Your task to perform on an android device: turn pop-ups off in chrome Image 0: 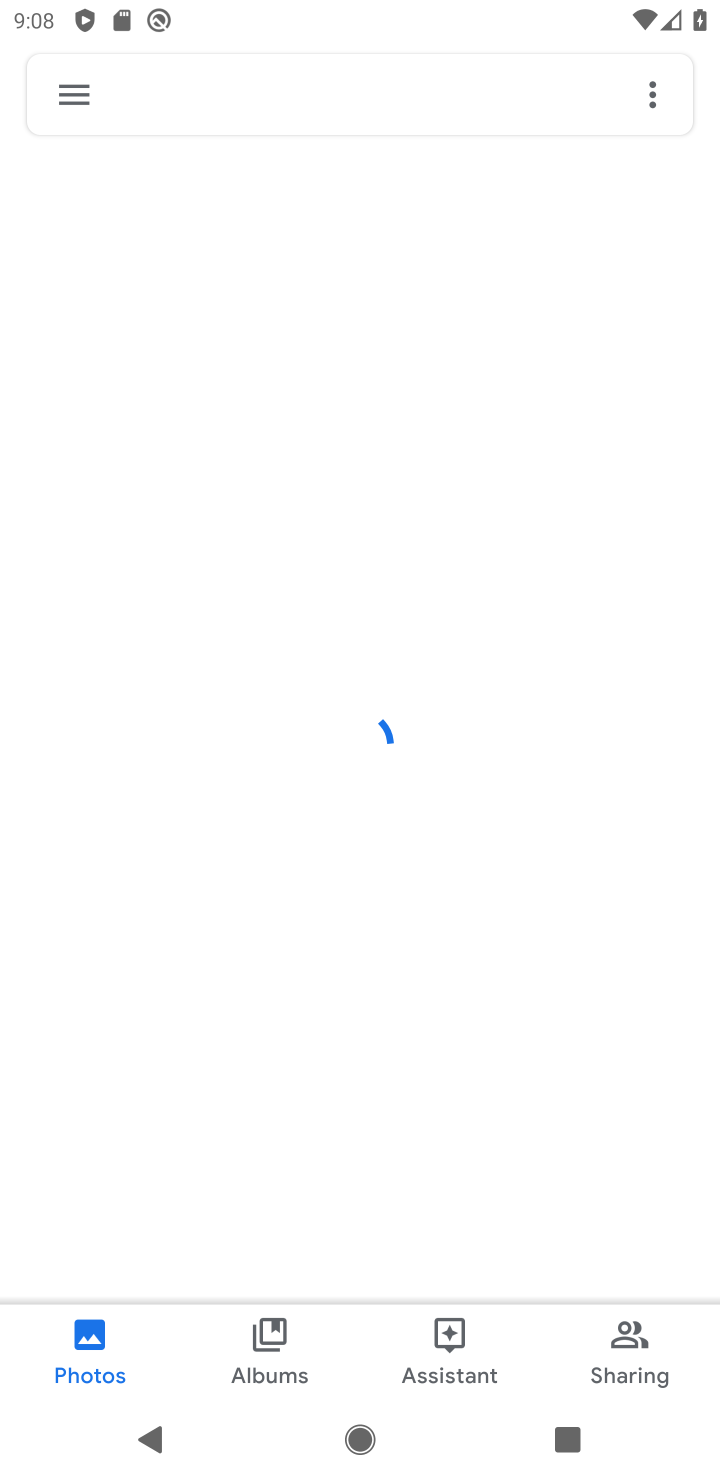
Step 0: press home button
Your task to perform on an android device: turn pop-ups off in chrome Image 1: 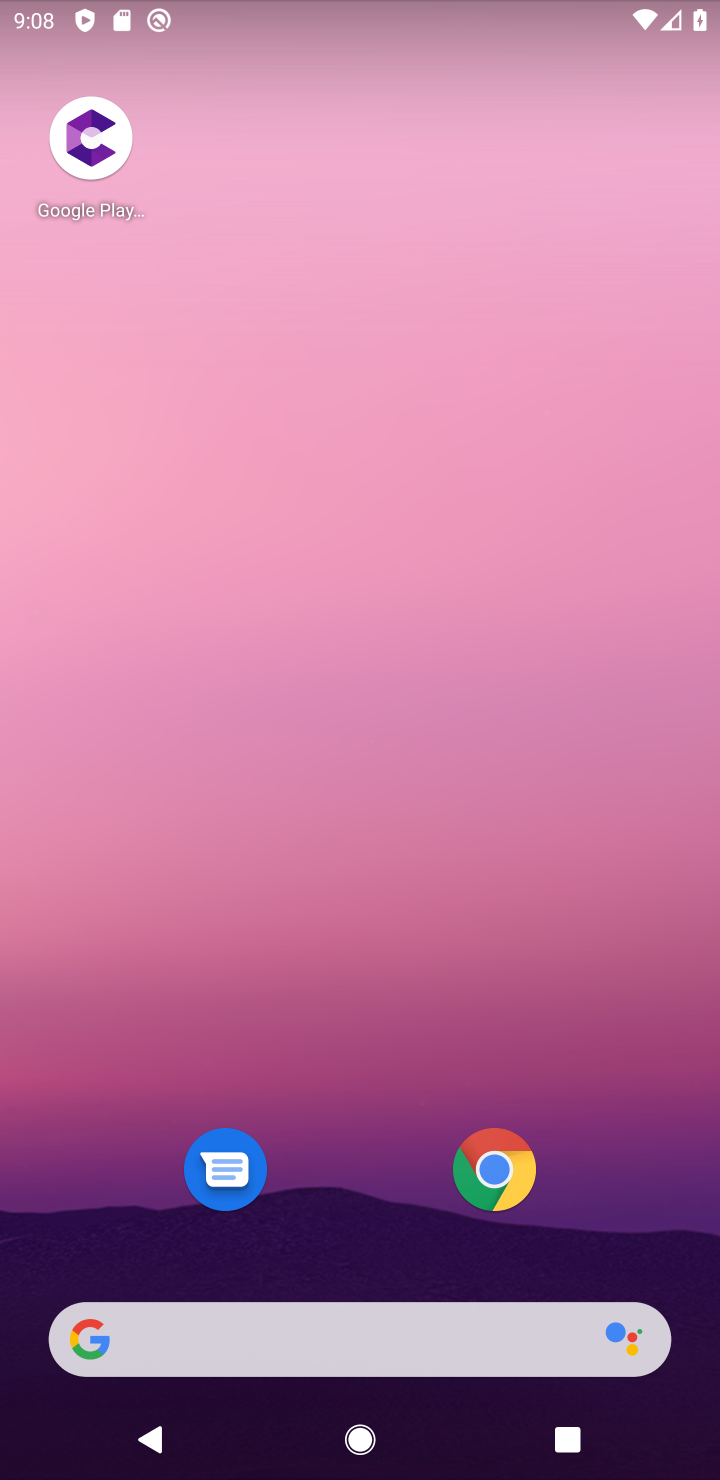
Step 1: click (499, 1174)
Your task to perform on an android device: turn pop-ups off in chrome Image 2: 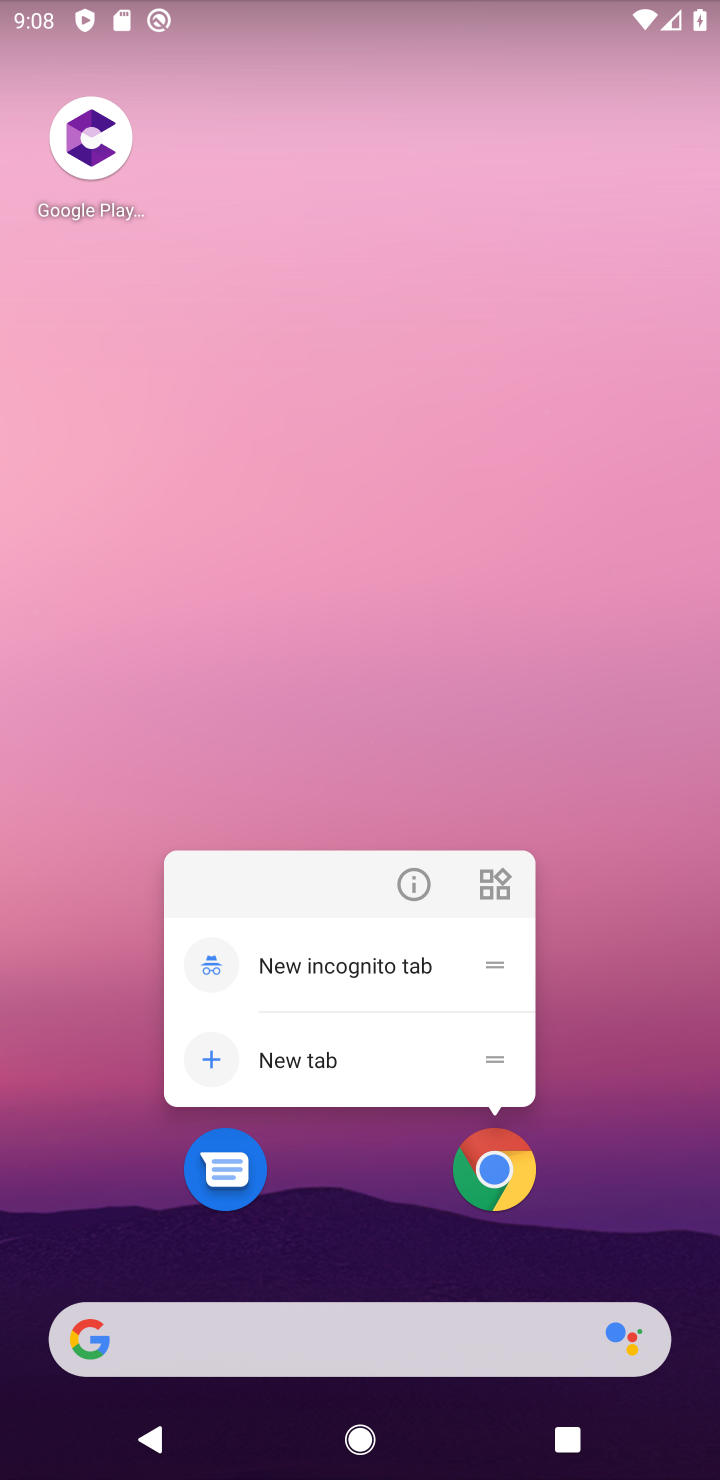
Step 2: click (499, 1173)
Your task to perform on an android device: turn pop-ups off in chrome Image 3: 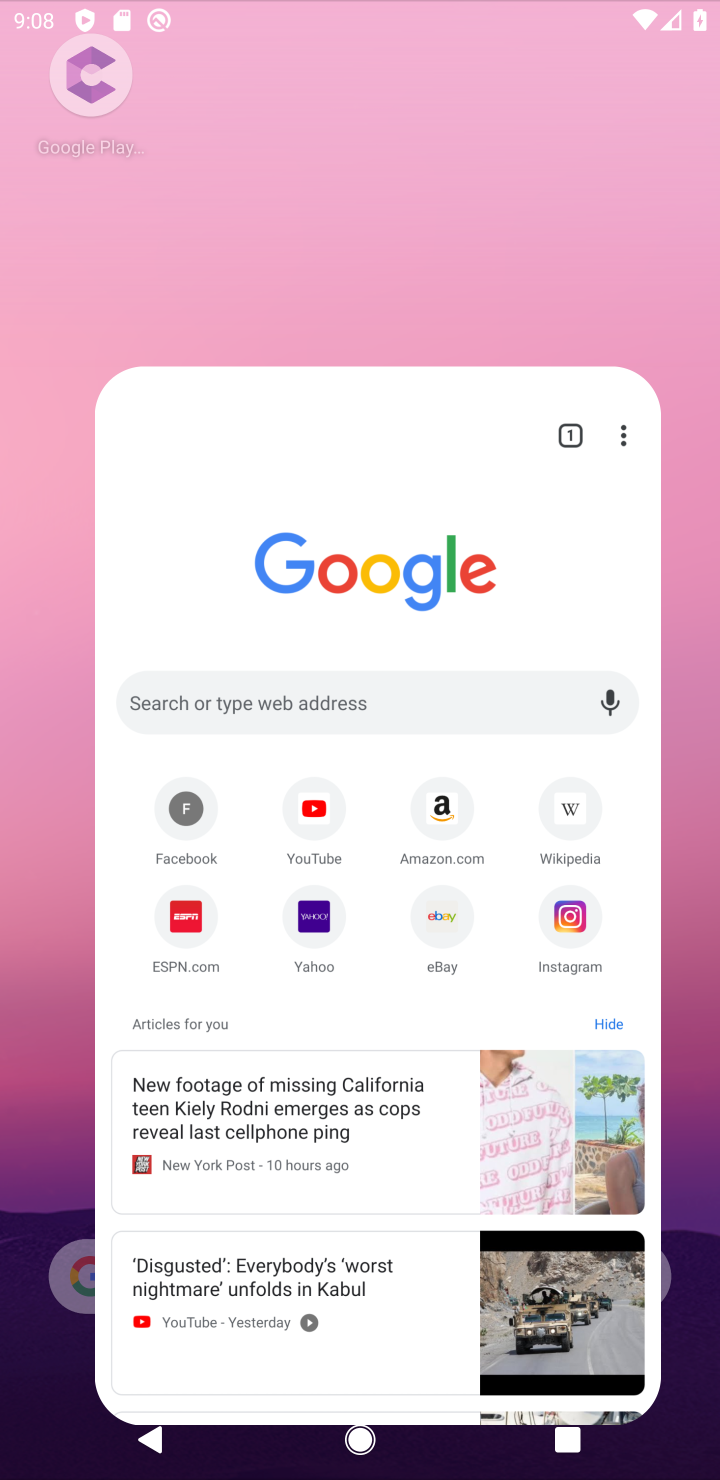
Step 3: click (499, 1176)
Your task to perform on an android device: turn pop-ups off in chrome Image 4: 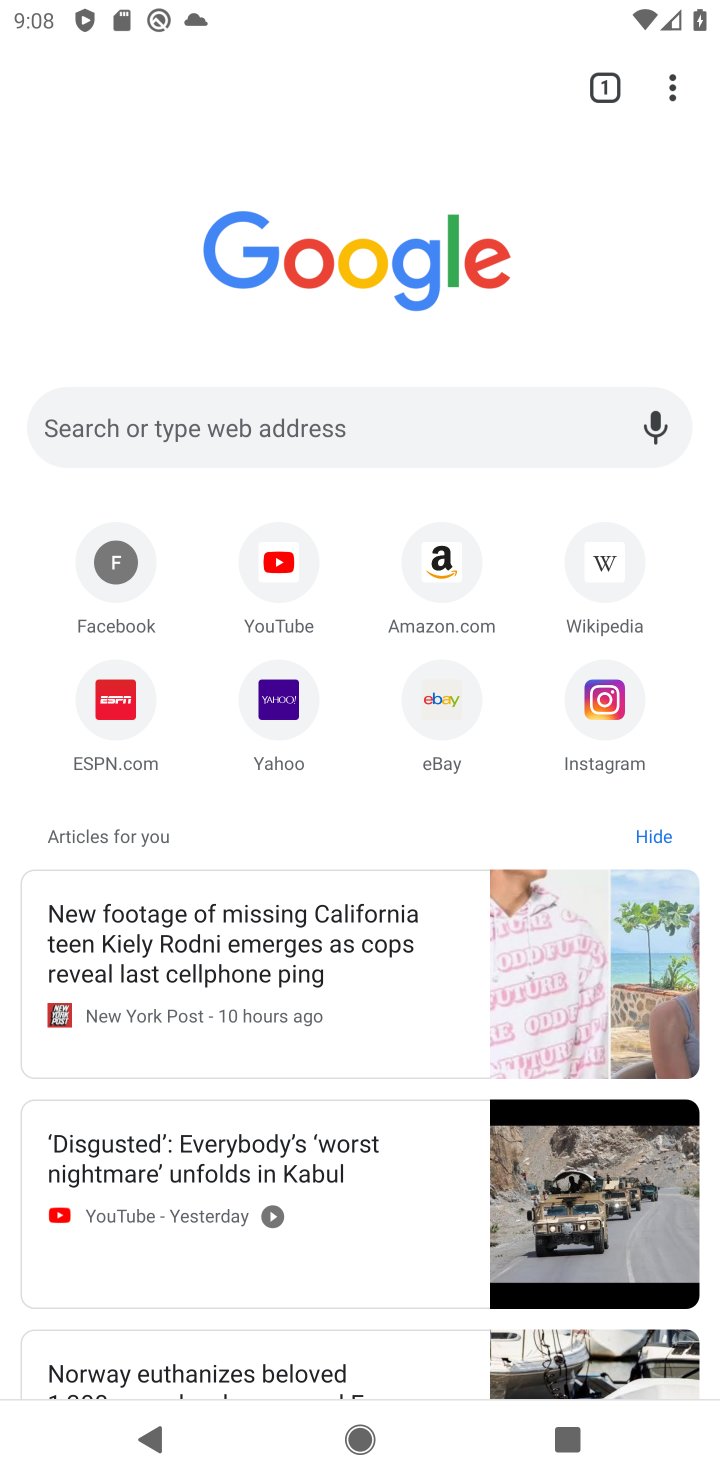
Step 4: drag from (677, 79) to (405, 751)
Your task to perform on an android device: turn pop-ups off in chrome Image 5: 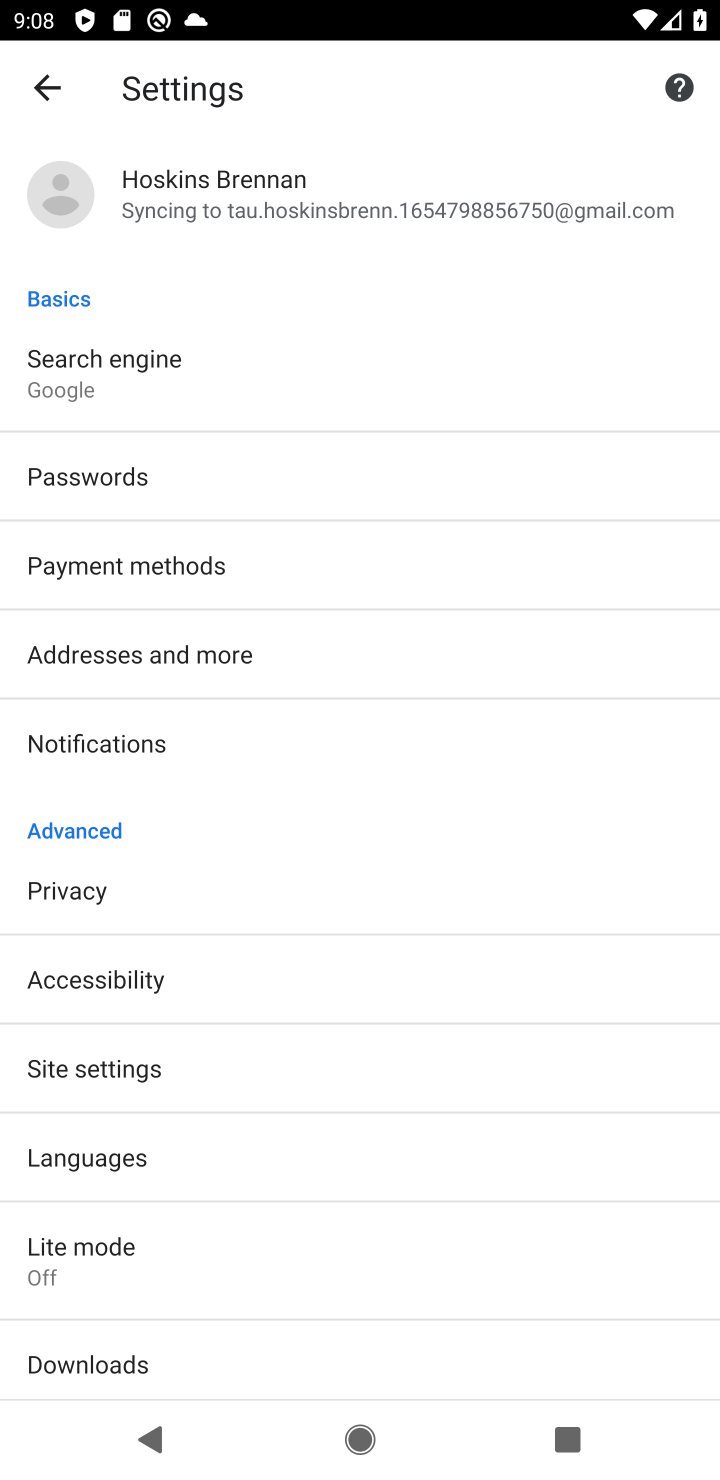
Step 5: click (129, 1069)
Your task to perform on an android device: turn pop-ups off in chrome Image 6: 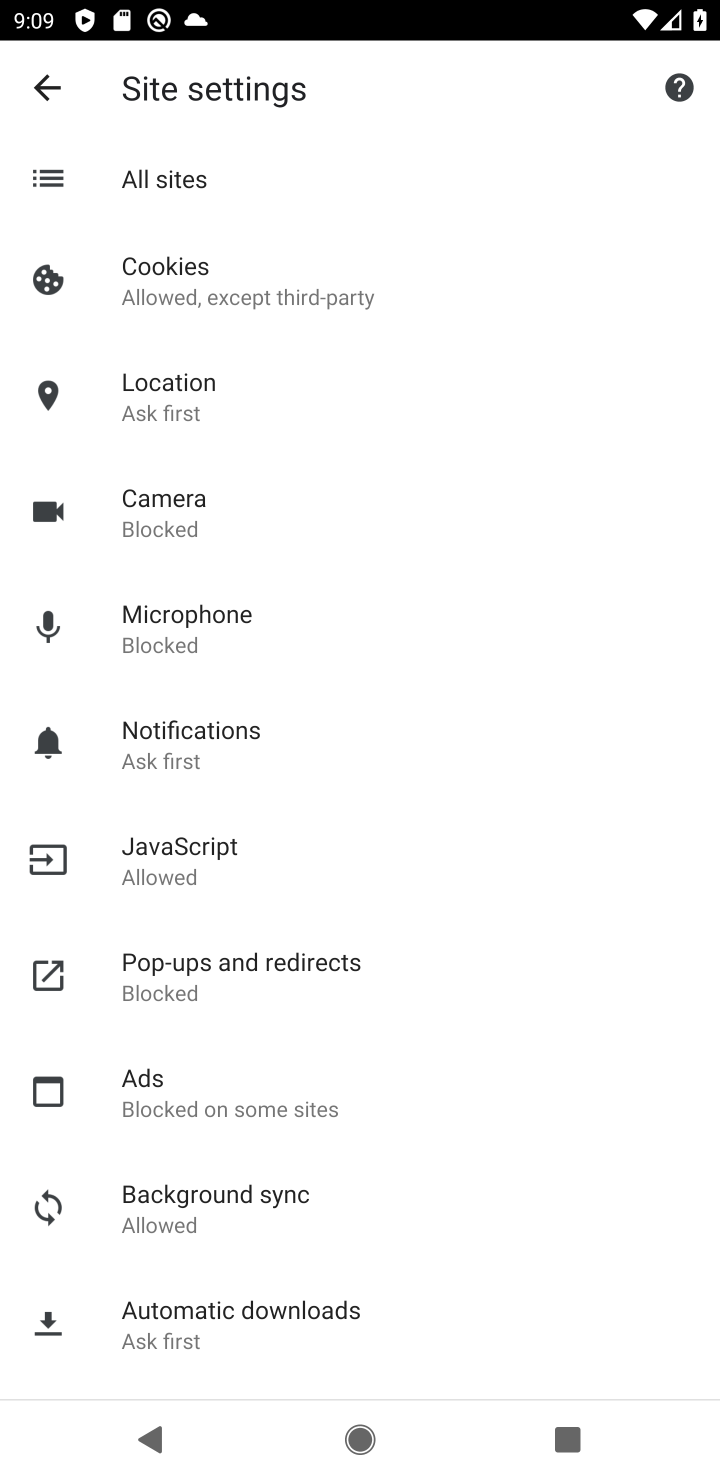
Step 6: click (186, 951)
Your task to perform on an android device: turn pop-ups off in chrome Image 7: 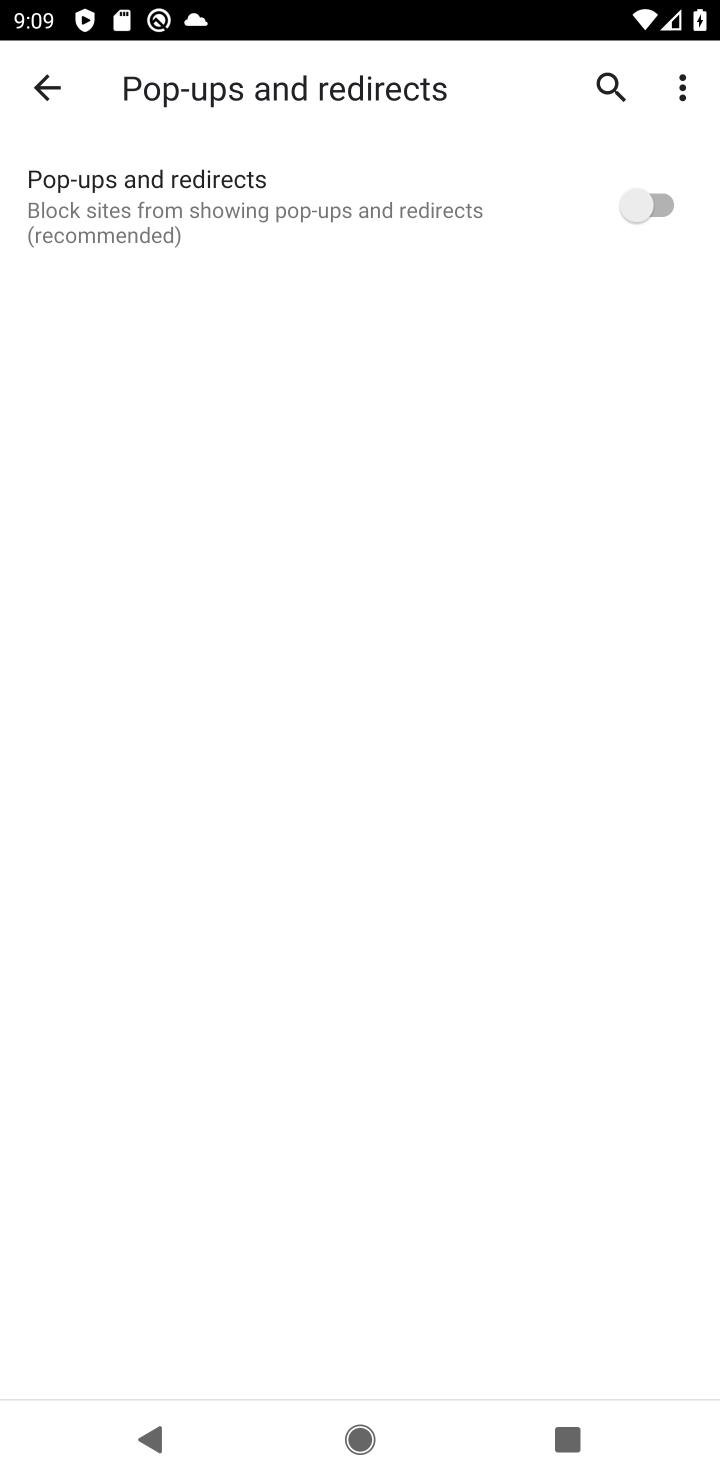
Step 7: task complete